Your task to perform on an android device: clear history in the chrome app Image 0: 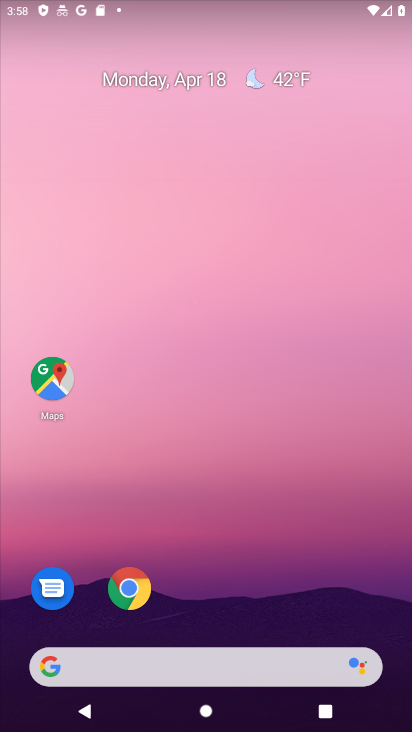
Step 0: click (142, 578)
Your task to perform on an android device: clear history in the chrome app Image 1: 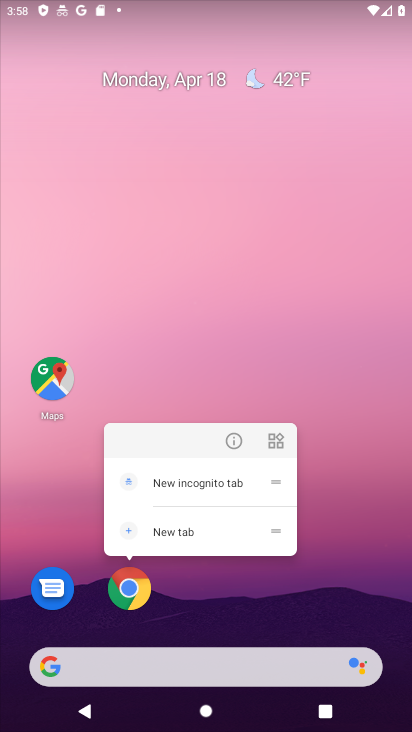
Step 1: click (143, 585)
Your task to perform on an android device: clear history in the chrome app Image 2: 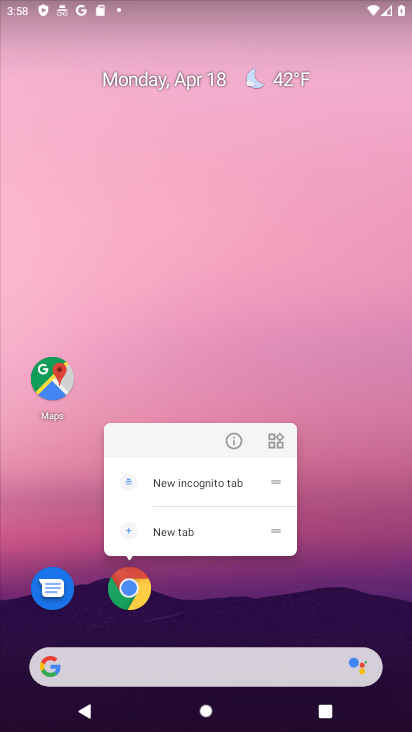
Step 2: click (141, 597)
Your task to perform on an android device: clear history in the chrome app Image 3: 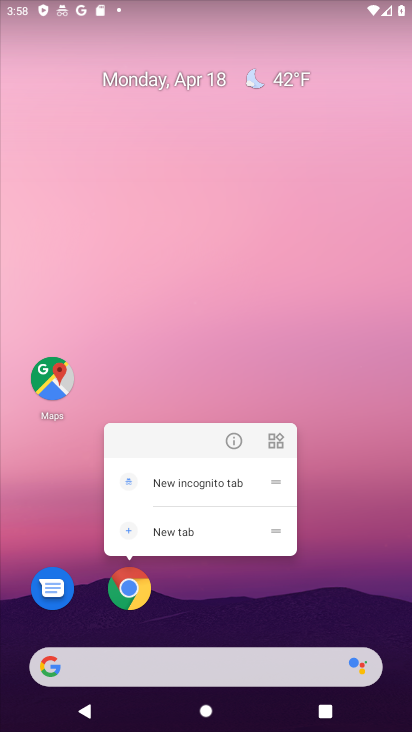
Step 3: click (142, 595)
Your task to perform on an android device: clear history in the chrome app Image 4: 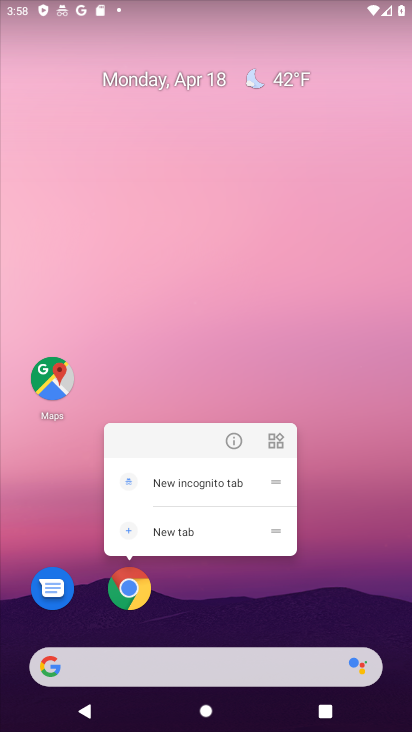
Step 4: click (132, 591)
Your task to perform on an android device: clear history in the chrome app Image 5: 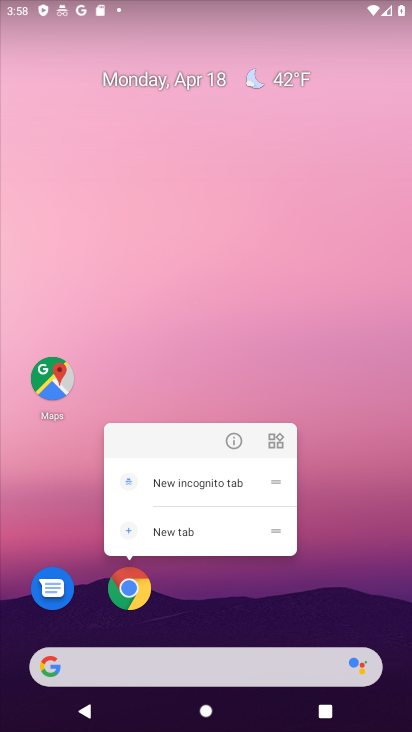
Step 5: click (141, 603)
Your task to perform on an android device: clear history in the chrome app Image 6: 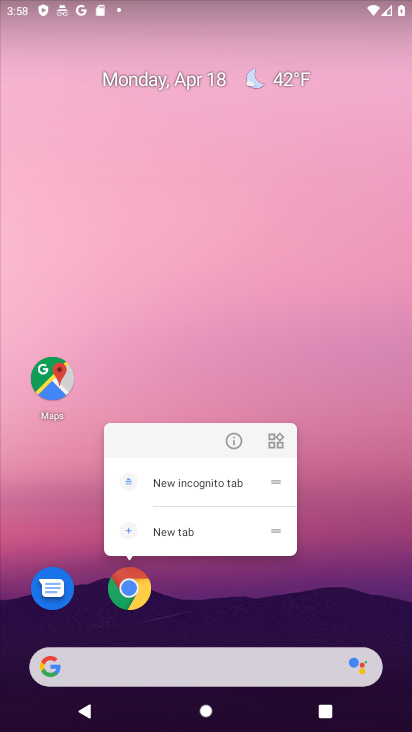
Step 6: click (141, 603)
Your task to perform on an android device: clear history in the chrome app Image 7: 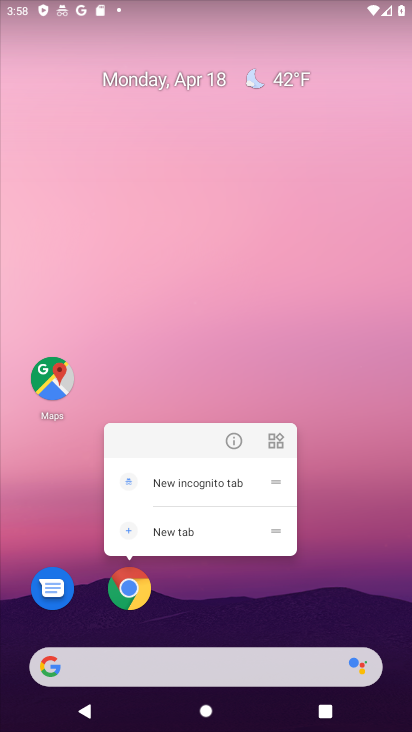
Step 7: click (123, 576)
Your task to perform on an android device: clear history in the chrome app Image 8: 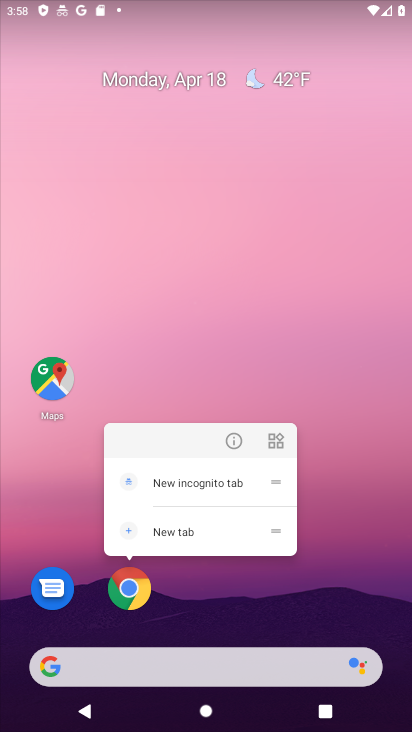
Step 8: click (127, 592)
Your task to perform on an android device: clear history in the chrome app Image 9: 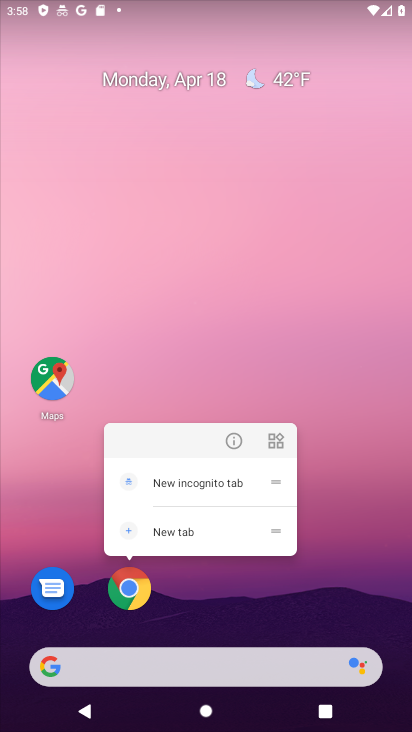
Step 9: click (127, 592)
Your task to perform on an android device: clear history in the chrome app Image 10: 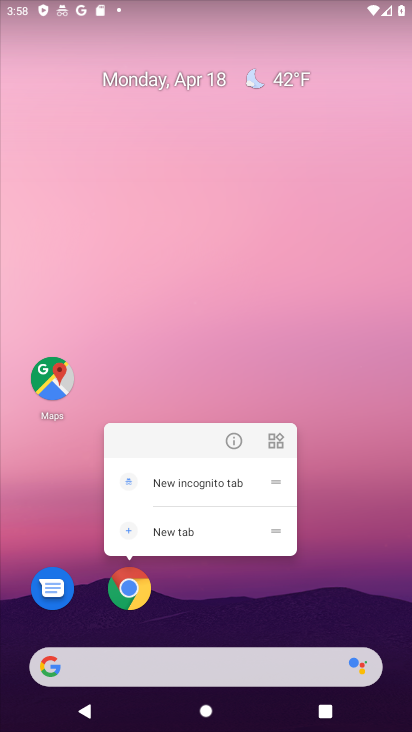
Step 10: click (126, 594)
Your task to perform on an android device: clear history in the chrome app Image 11: 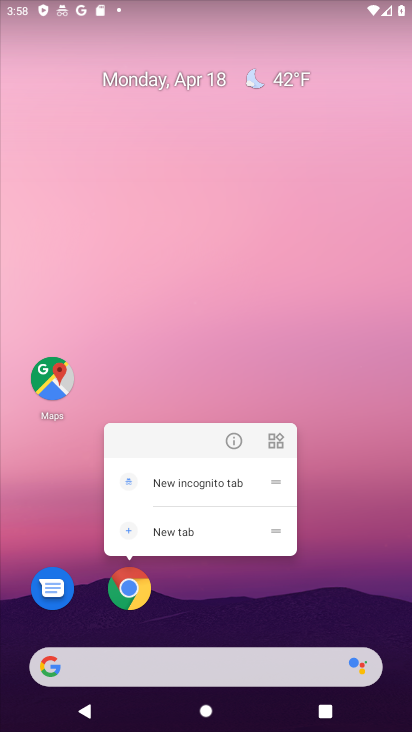
Step 11: click (138, 610)
Your task to perform on an android device: clear history in the chrome app Image 12: 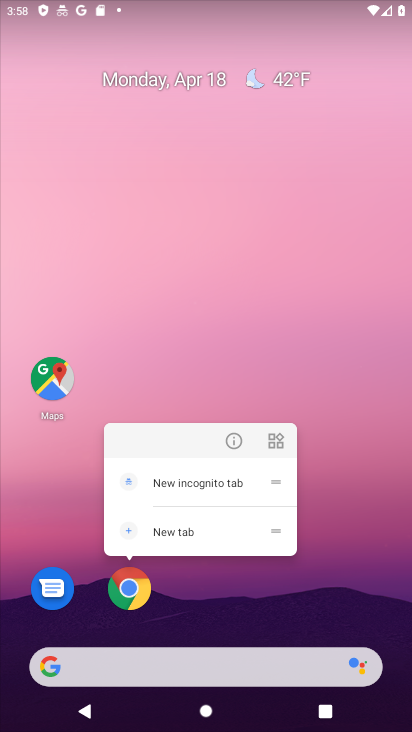
Step 12: click (138, 607)
Your task to perform on an android device: clear history in the chrome app Image 13: 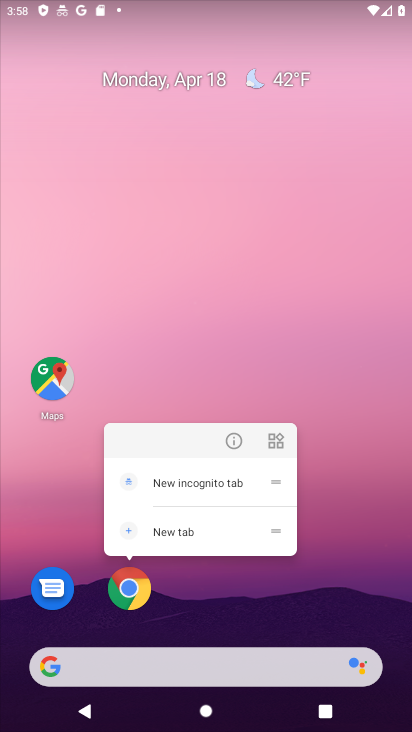
Step 13: click (139, 605)
Your task to perform on an android device: clear history in the chrome app Image 14: 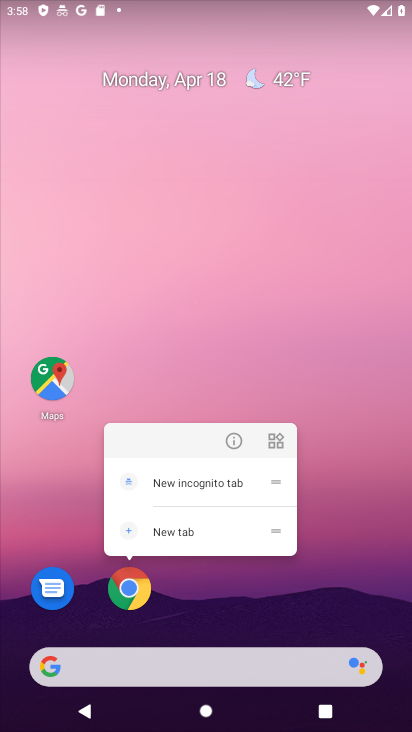
Step 14: click (141, 599)
Your task to perform on an android device: clear history in the chrome app Image 15: 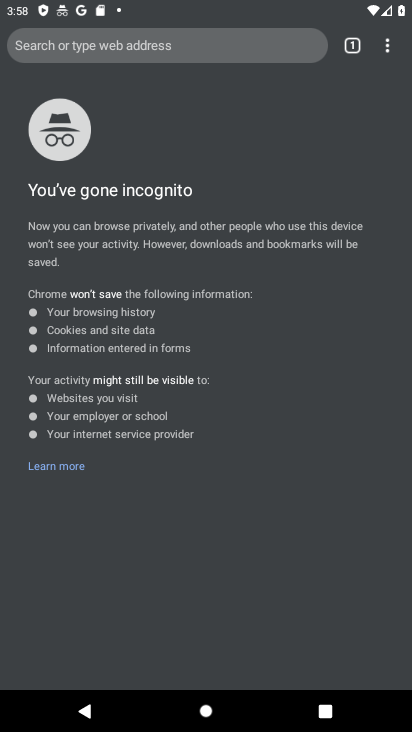
Step 15: task complete